Your task to perform on an android device: toggle data saver in the chrome app Image 0: 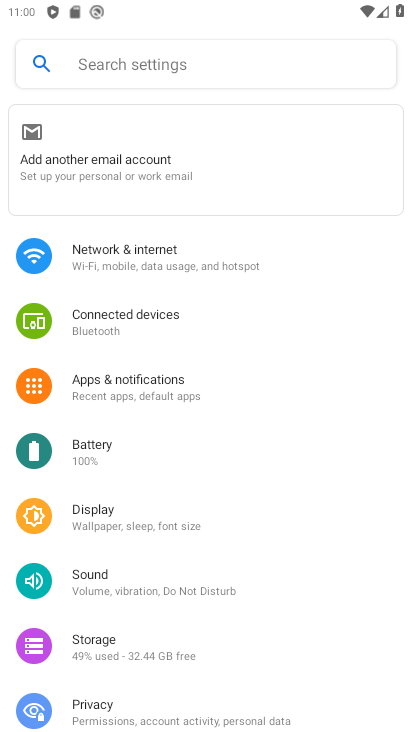
Step 0: drag from (218, 549) to (207, 395)
Your task to perform on an android device: toggle data saver in the chrome app Image 1: 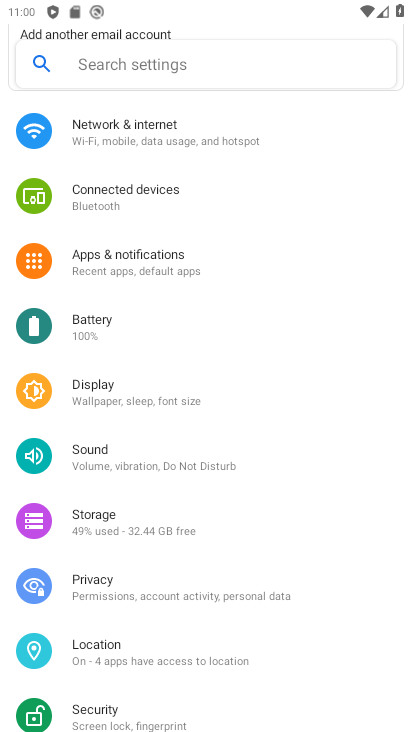
Step 1: press home button
Your task to perform on an android device: toggle data saver in the chrome app Image 2: 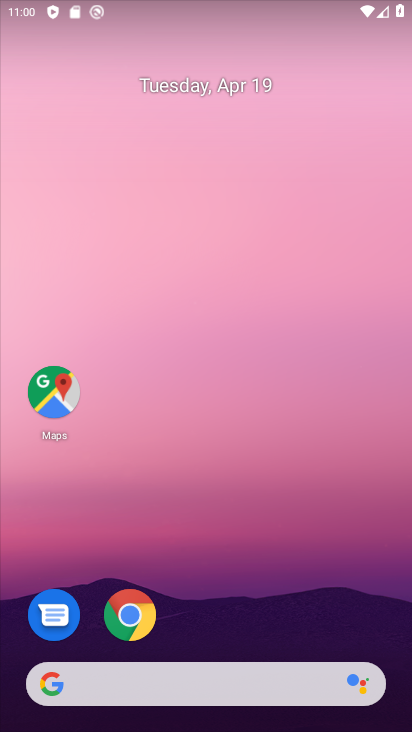
Step 2: click (128, 615)
Your task to perform on an android device: toggle data saver in the chrome app Image 3: 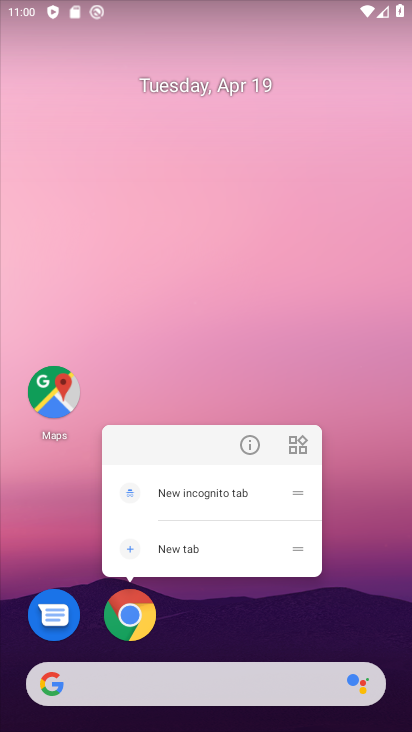
Step 3: click (129, 615)
Your task to perform on an android device: toggle data saver in the chrome app Image 4: 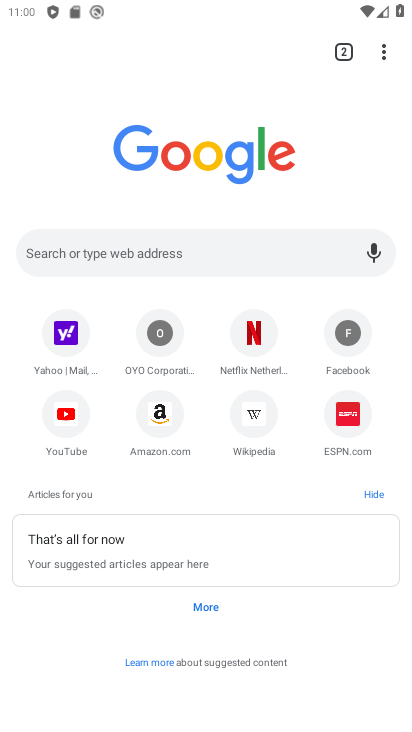
Step 4: click (381, 53)
Your task to perform on an android device: toggle data saver in the chrome app Image 5: 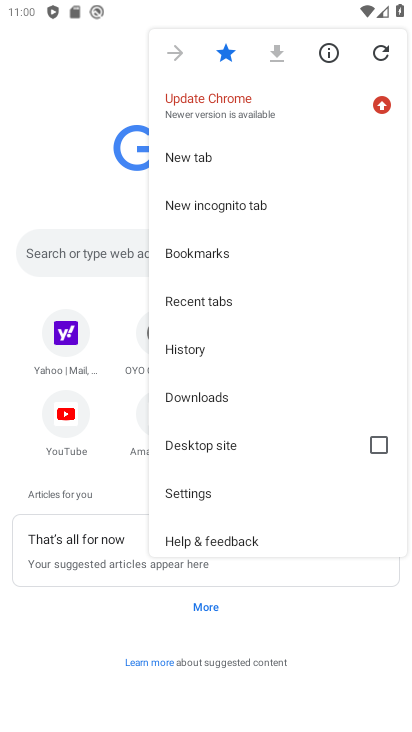
Step 5: click (189, 494)
Your task to perform on an android device: toggle data saver in the chrome app Image 6: 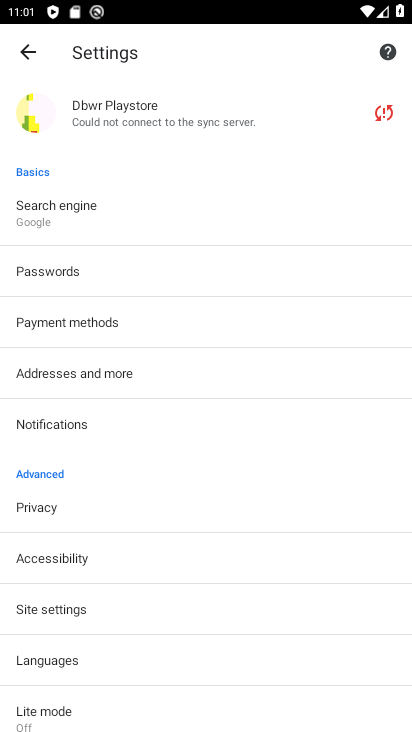
Step 6: click (75, 607)
Your task to perform on an android device: toggle data saver in the chrome app Image 7: 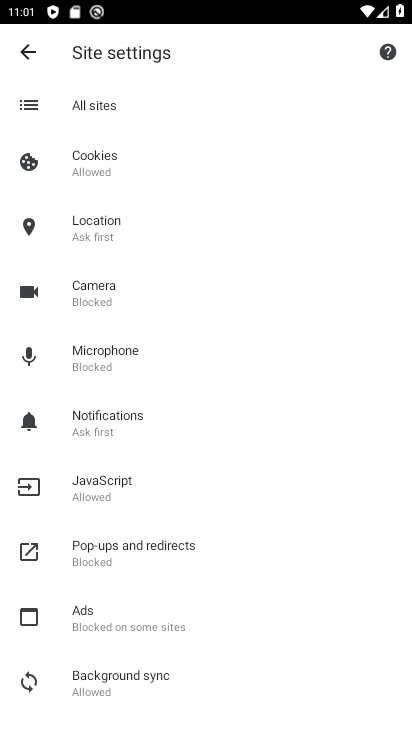
Step 7: press back button
Your task to perform on an android device: toggle data saver in the chrome app Image 8: 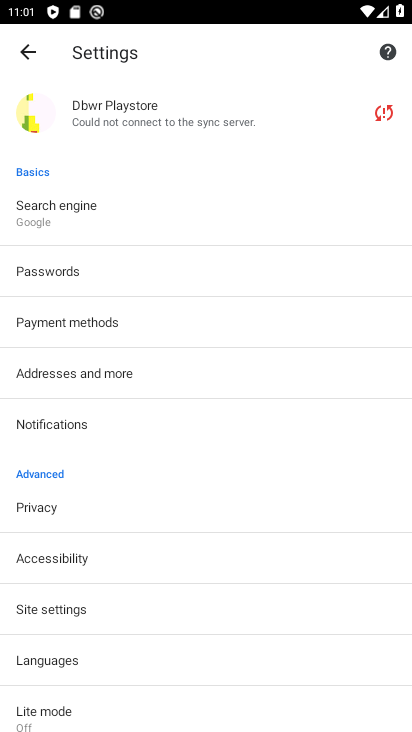
Step 8: click (64, 711)
Your task to perform on an android device: toggle data saver in the chrome app Image 9: 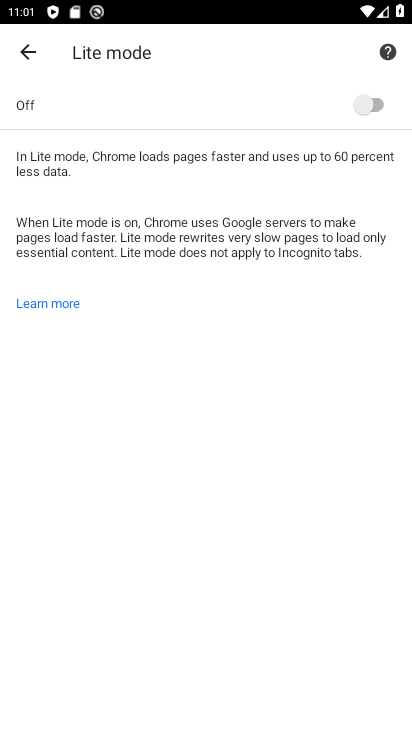
Step 9: click (367, 107)
Your task to perform on an android device: toggle data saver in the chrome app Image 10: 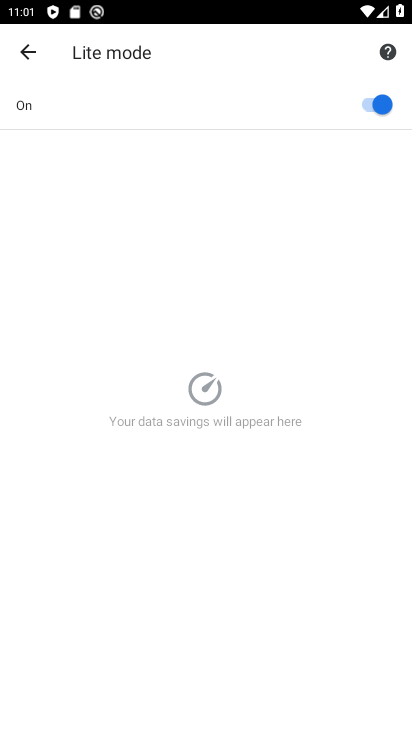
Step 10: task complete